Your task to perform on an android device: Open the calendar app, open the side menu, and click the "Day" option Image 0: 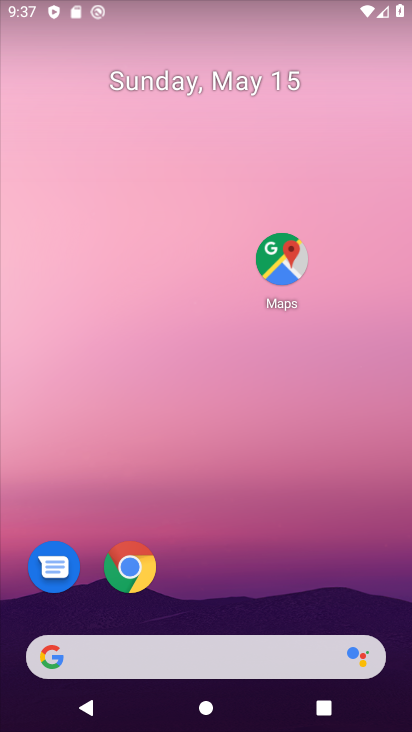
Step 0: drag from (218, 570) to (234, 116)
Your task to perform on an android device: Open the calendar app, open the side menu, and click the "Day" option Image 1: 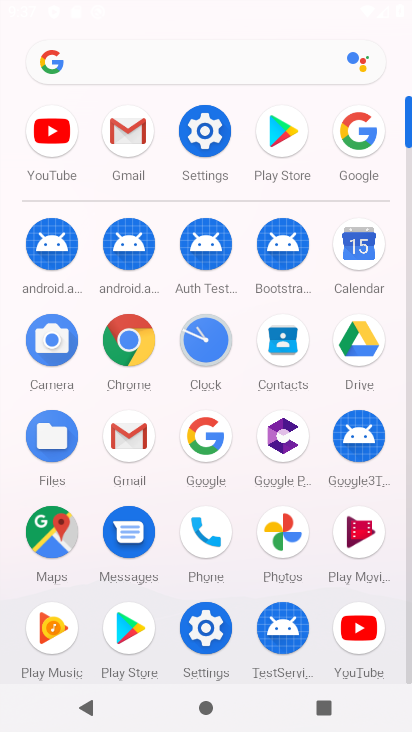
Step 1: click (360, 243)
Your task to perform on an android device: Open the calendar app, open the side menu, and click the "Day" option Image 2: 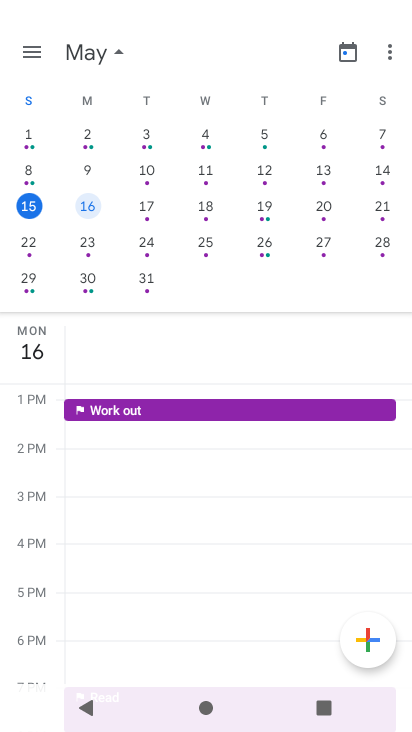
Step 2: click (33, 202)
Your task to perform on an android device: Open the calendar app, open the side menu, and click the "Day" option Image 3: 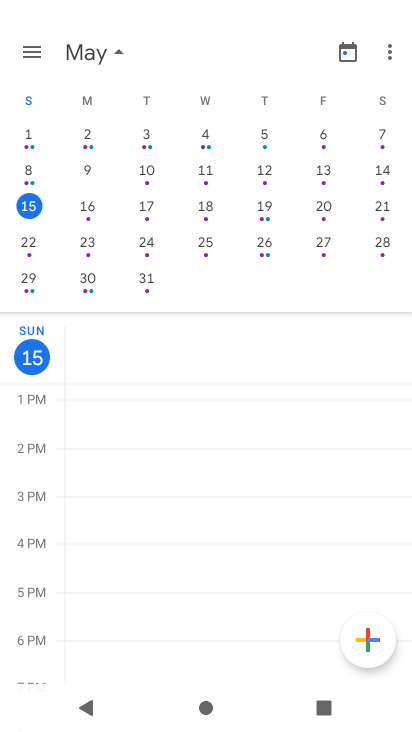
Step 3: click (28, 52)
Your task to perform on an android device: Open the calendar app, open the side menu, and click the "Day" option Image 4: 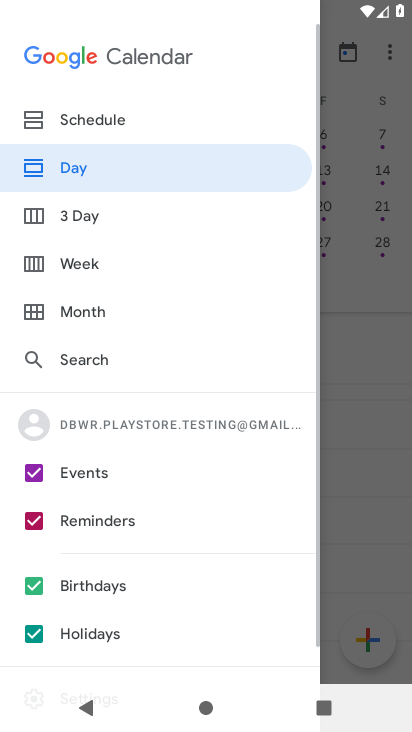
Step 4: click (117, 175)
Your task to perform on an android device: Open the calendar app, open the side menu, and click the "Day" option Image 5: 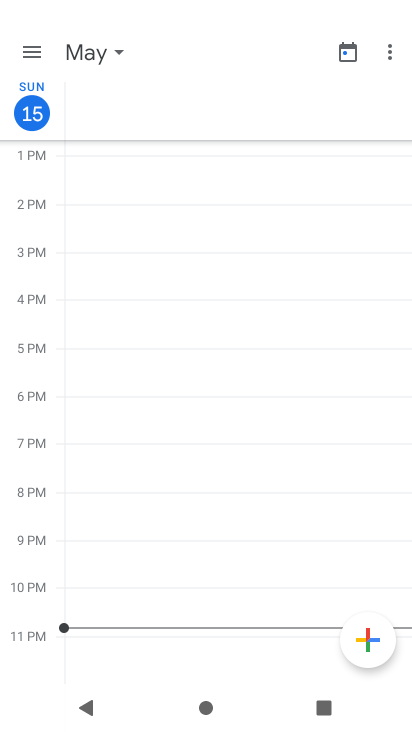
Step 5: task complete